Your task to perform on an android device: show emergency info Image 0: 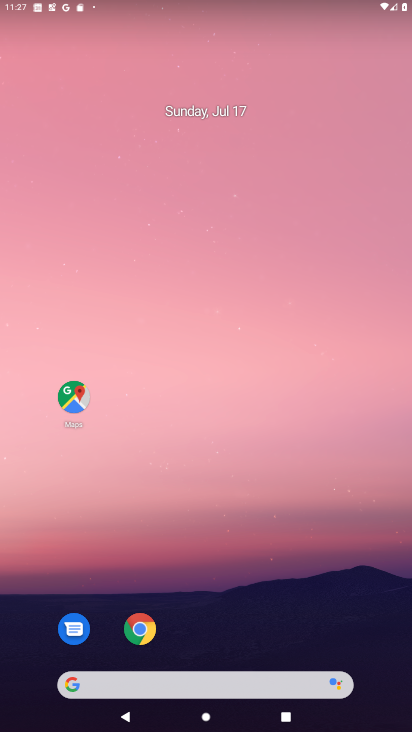
Step 0: drag from (204, 681) to (301, 214)
Your task to perform on an android device: show emergency info Image 1: 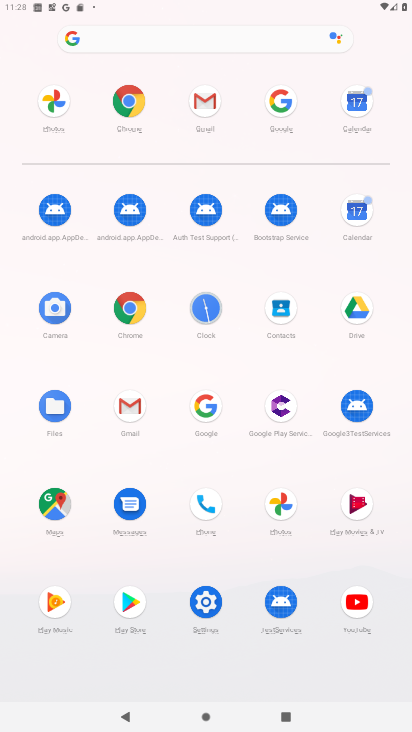
Step 1: click (206, 603)
Your task to perform on an android device: show emergency info Image 2: 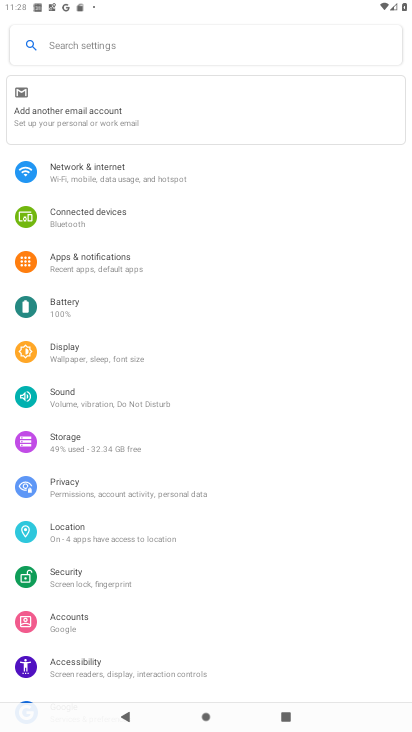
Step 2: drag from (89, 471) to (124, 384)
Your task to perform on an android device: show emergency info Image 3: 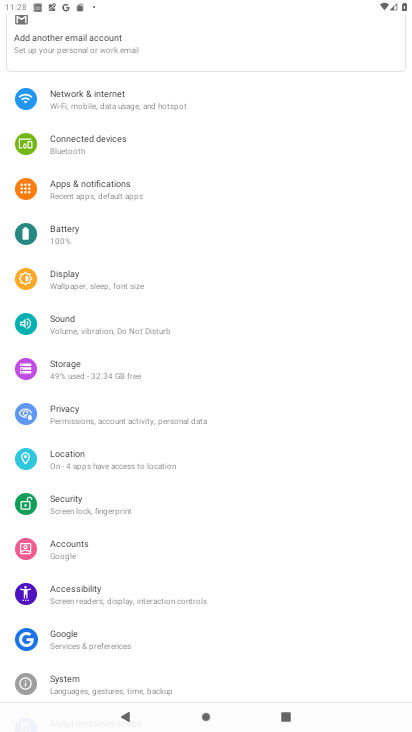
Step 3: drag from (108, 617) to (224, 459)
Your task to perform on an android device: show emergency info Image 4: 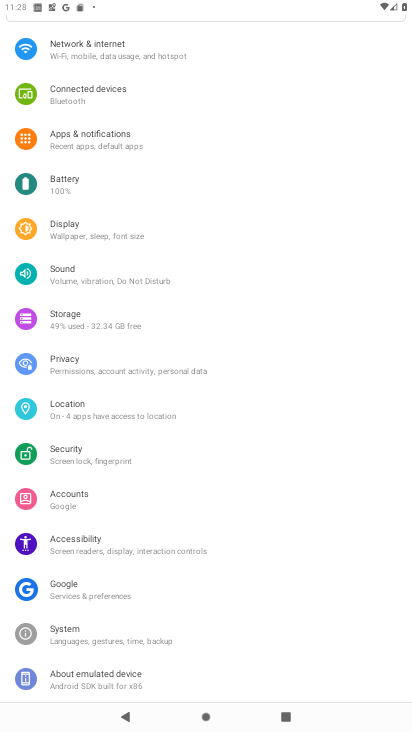
Step 4: click (65, 686)
Your task to perform on an android device: show emergency info Image 5: 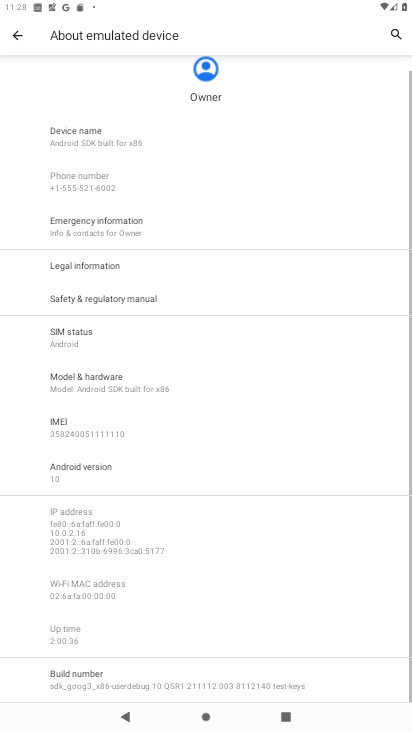
Step 5: click (85, 230)
Your task to perform on an android device: show emergency info Image 6: 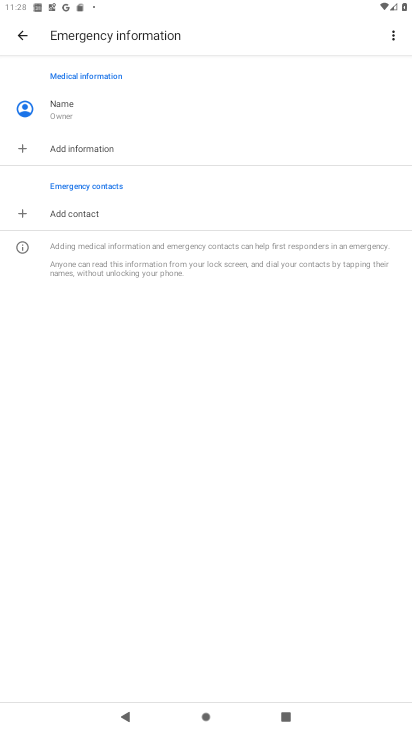
Step 6: task complete